Your task to perform on an android device: turn off improve location accuracy Image 0: 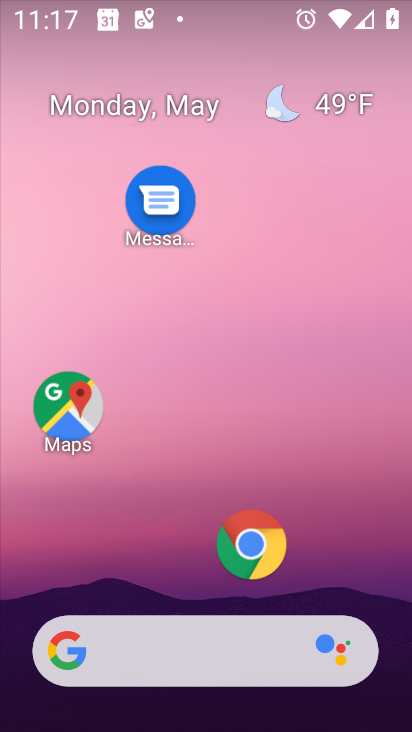
Step 0: drag from (159, 549) to (159, 7)
Your task to perform on an android device: turn off improve location accuracy Image 1: 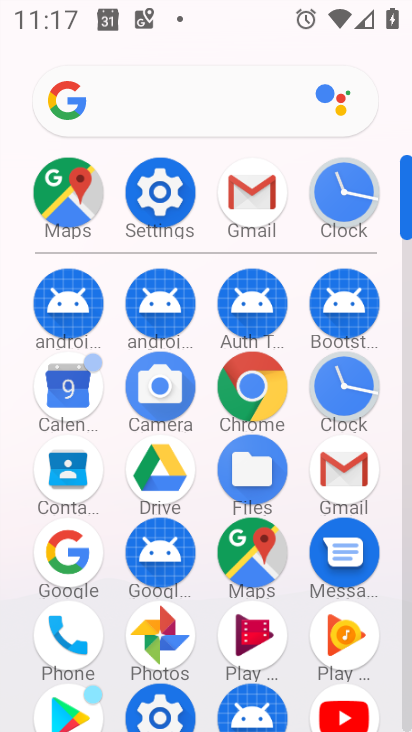
Step 1: click (149, 201)
Your task to perform on an android device: turn off improve location accuracy Image 2: 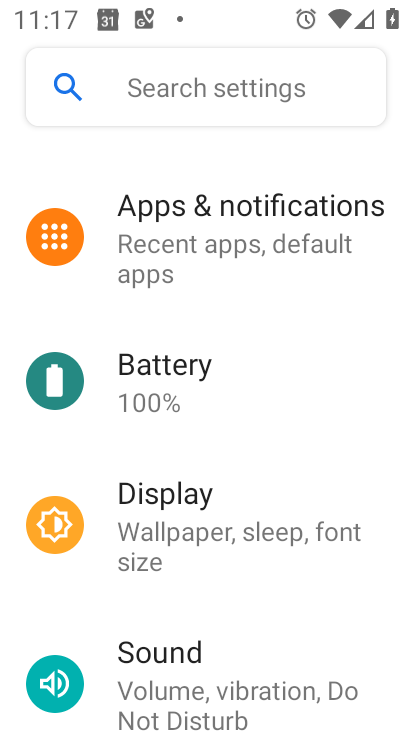
Step 2: drag from (275, 544) to (299, 239)
Your task to perform on an android device: turn off improve location accuracy Image 3: 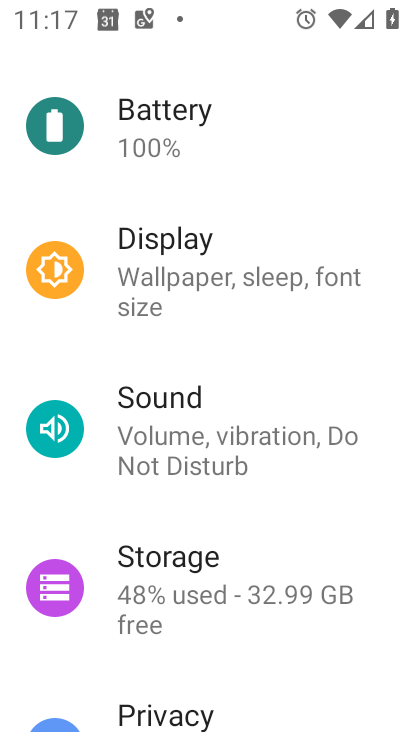
Step 3: drag from (272, 538) to (280, 226)
Your task to perform on an android device: turn off improve location accuracy Image 4: 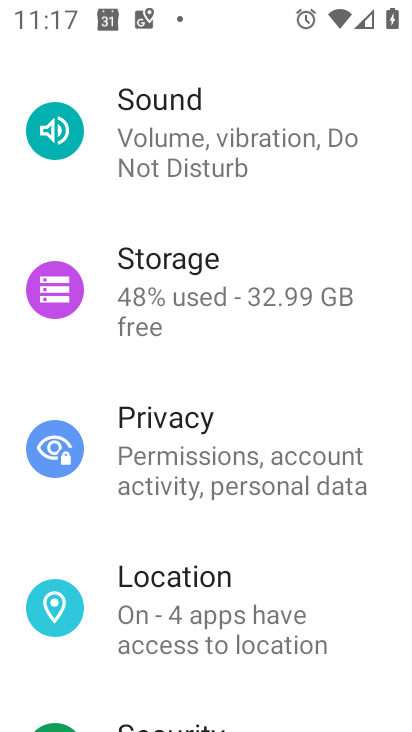
Step 4: click (188, 598)
Your task to perform on an android device: turn off improve location accuracy Image 5: 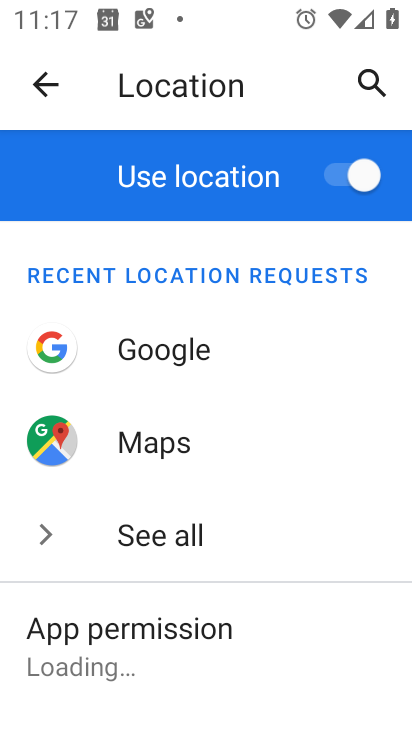
Step 5: drag from (243, 620) to (348, 235)
Your task to perform on an android device: turn off improve location accuracy Image 6: 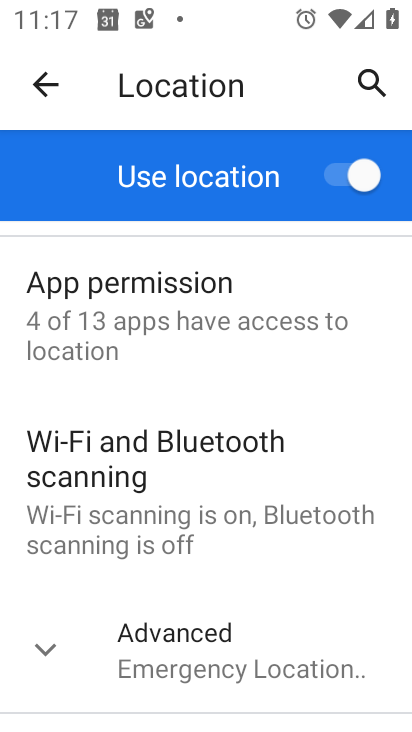
Step 6: click (264, 662)
Your task to perform on an android device: turn off improve location accuracy Image 7: 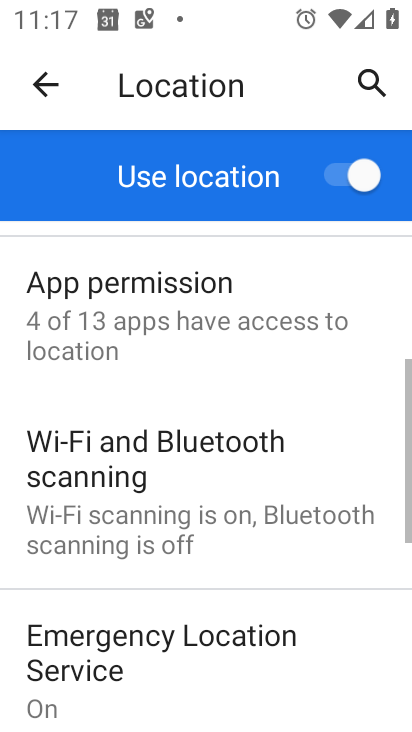
Step 7: drag from (262, 640) to (344, 314)
Your task to perform on an android device: turn off improve location accuracy Image 8: 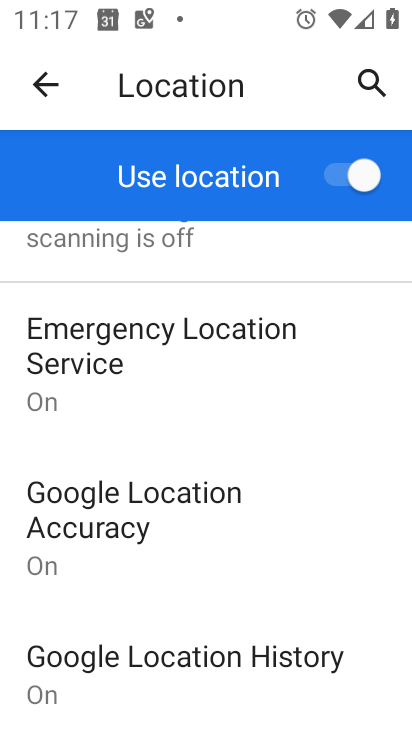
Step 8: click (229, 543)
Your task to perform on an android device: turn off improve location accuracy Image 9: 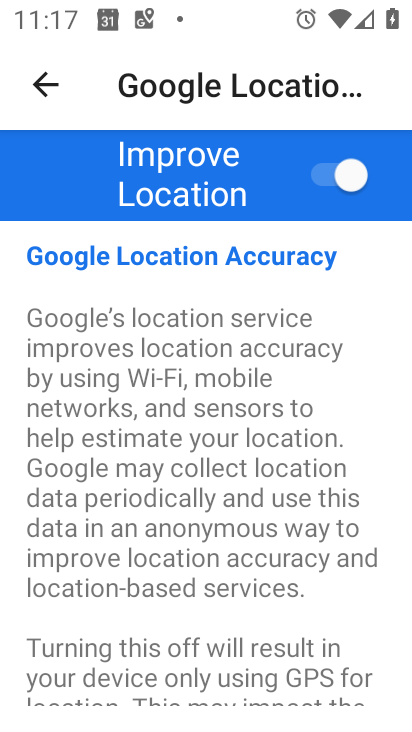
Step 9: click (317, 188)
Your task to perform on an android device: turn off improve location accuracy Image 10: 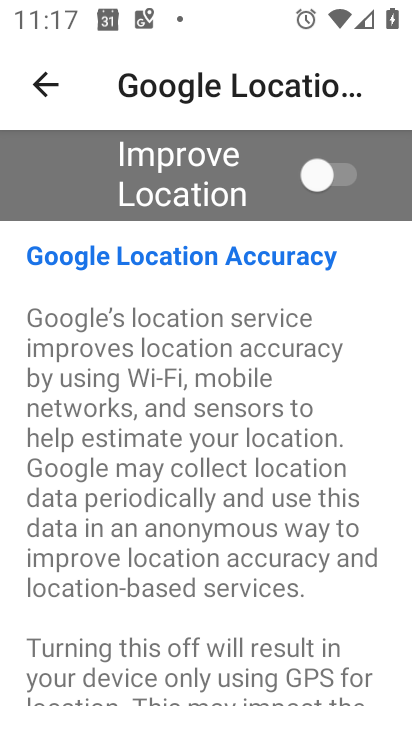
Step 10: task complete